Your task to perform on an android device: Search for "razer blackwidow" on target.com, select the first entry, and add it to the cart. Image 0: 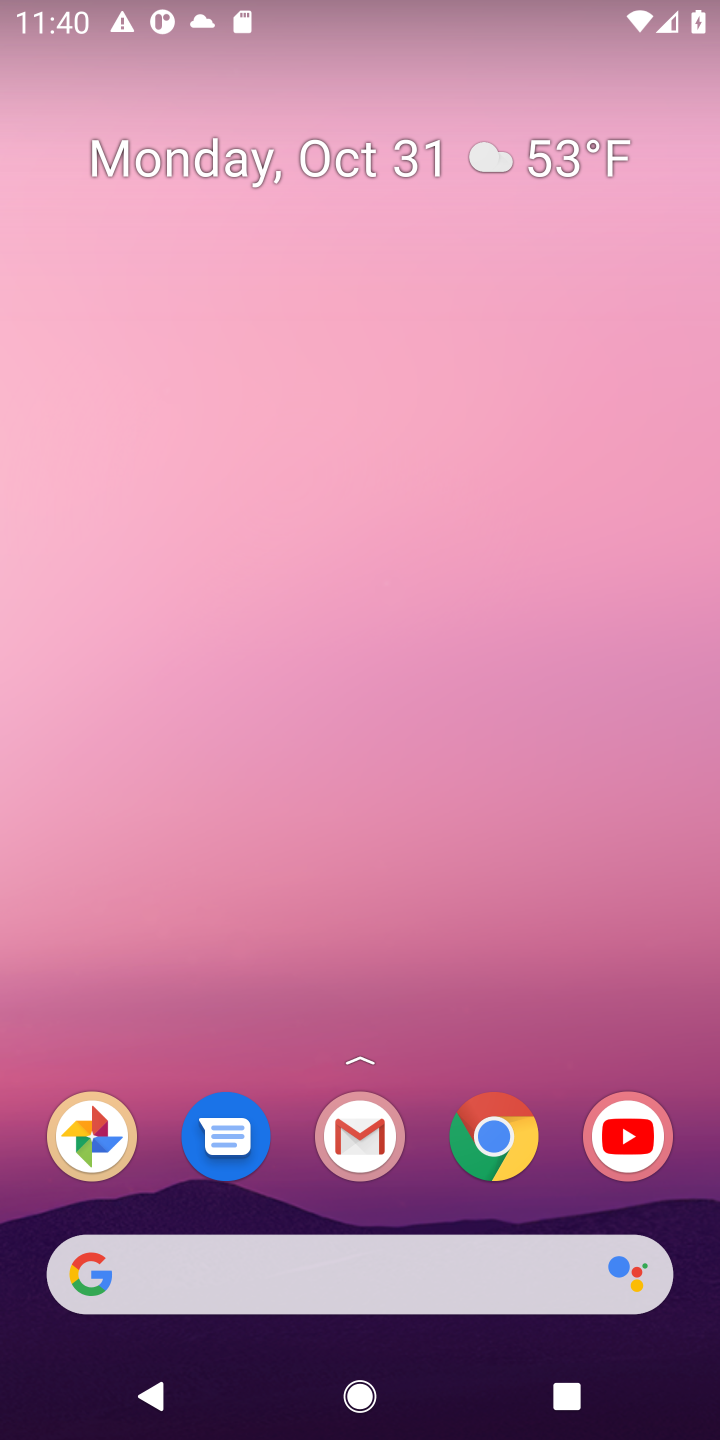
Step 0: press home button
Your task to perform on an android device: Search for "razer blackwidow" on target.com, select the first entry, and add it to the cart. Image 1: 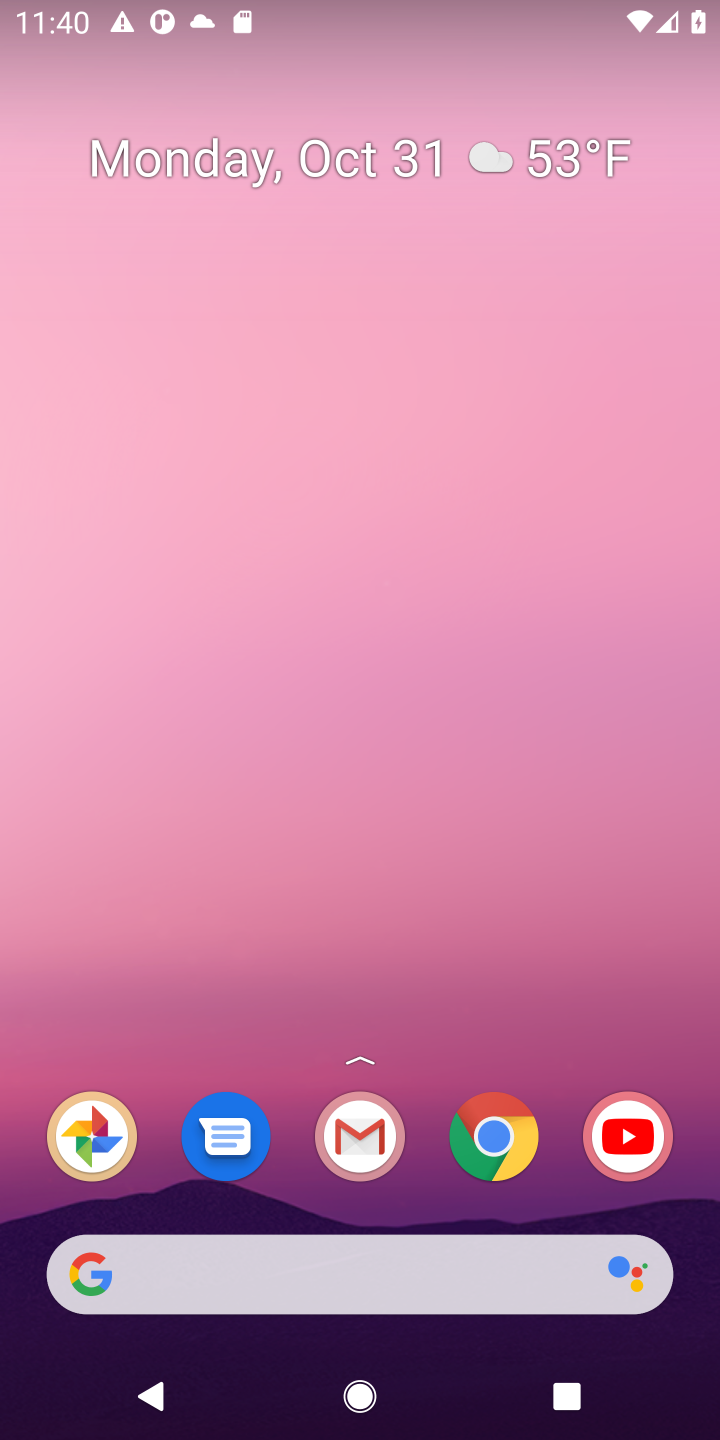
Step 1: click (127, 1278)
Your task to perform on an android device: Search for "razer blackwidow" on target.com, select the first entry, and add it to the cart. Image 2: 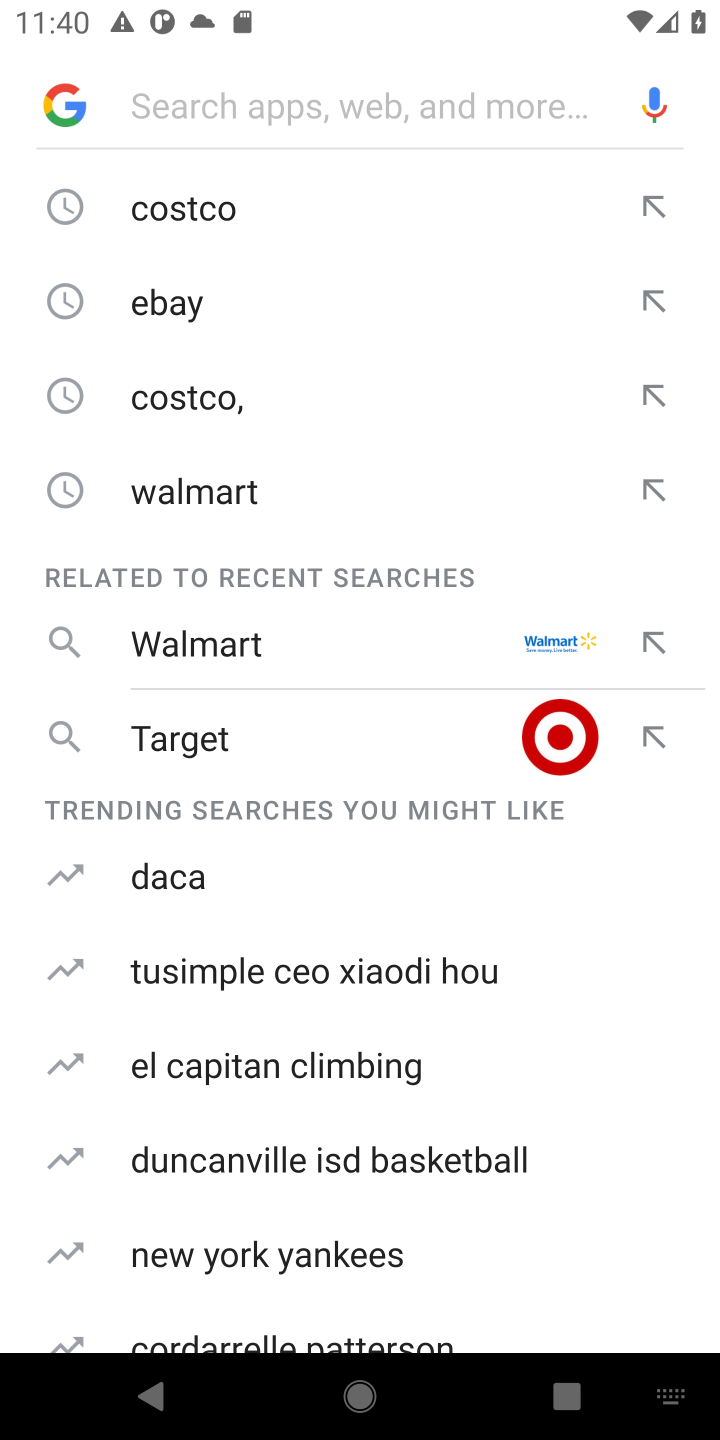
Step 2: type " target.com,"
Your task to perform on an android device: Search for "razer blackwidow" on target.com, select the first entry, and add it to the cart. Image 3: 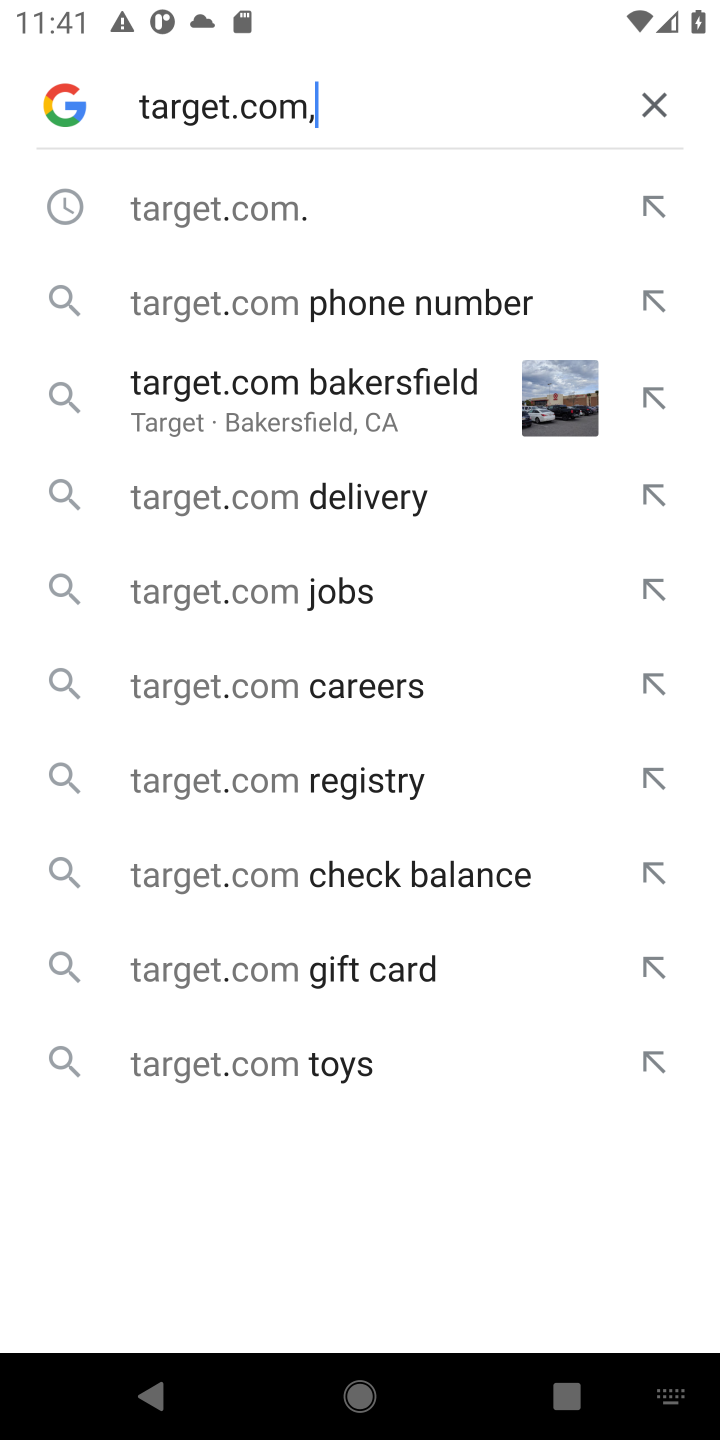
Step 3: press enter
Your task to perform on an android device: Search for "razer blackwidow" on target.com, select the first entry, and add it to the cart. Image 4: 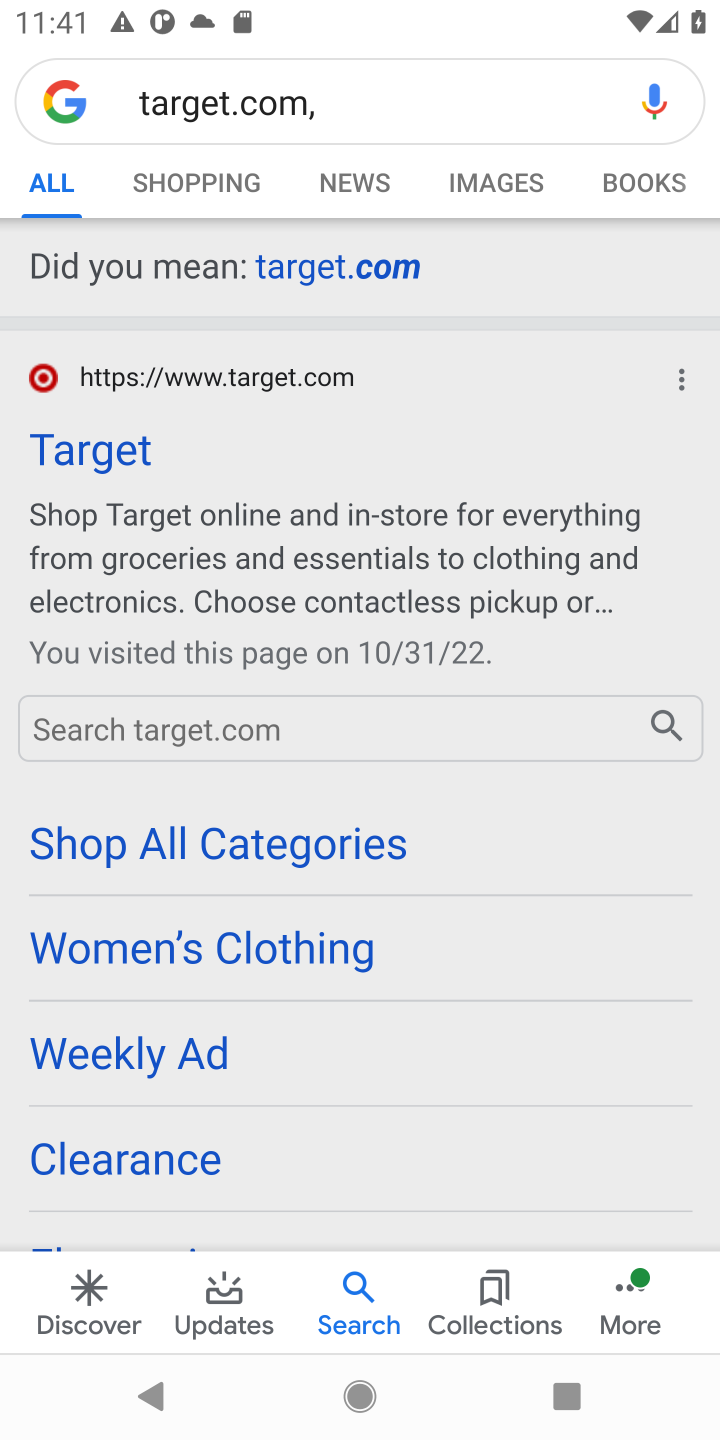
Step 4: click (90, 457)
Your task to perform on an android device: Search for "razer blackwidow" on target.com, select the first entry, and add it to the cart. Image 5: 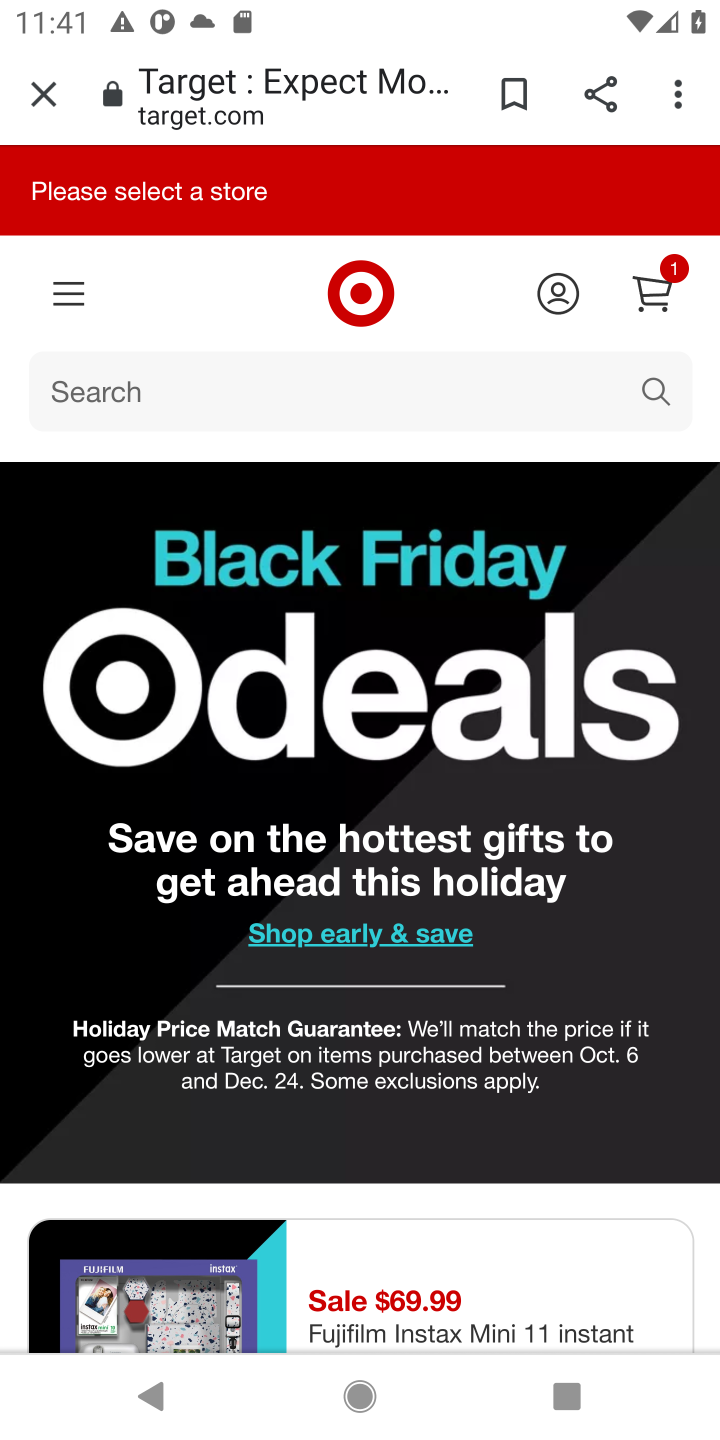
Step 5: click (129, 390)
Your task to perform on an android device: Search for "razer blackwidow" on target.com, select the first entry, and add it to the cart. Image 6: 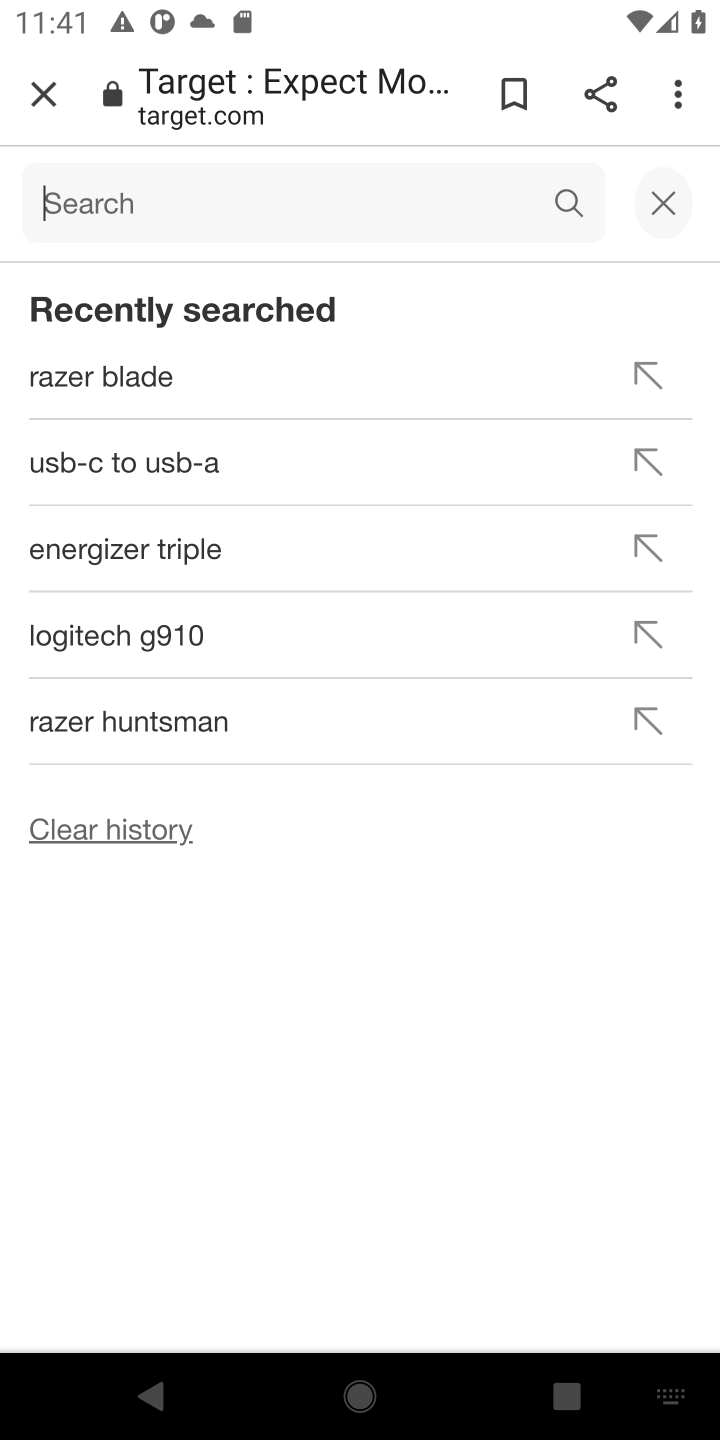
Step 6: type "razer blackwidow"
Your task to perform on an android device: Search for "razer blackwidow" on target.com, select the first entry, and add it to the cart. Image 7: 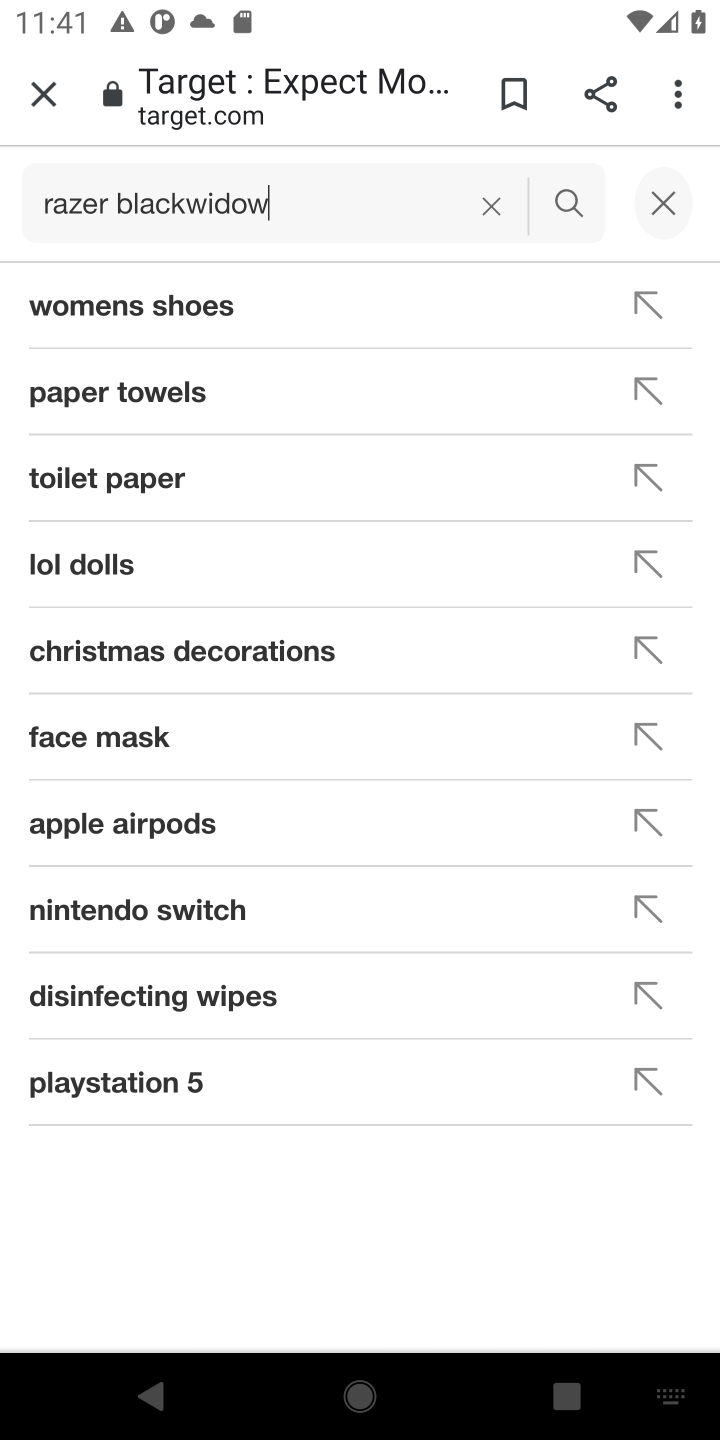
Step 7: press enter
Your task to perform on an android device: Search for "razer blackwidow" on target.com, select the first entry, and add it to the cart. Image 8: 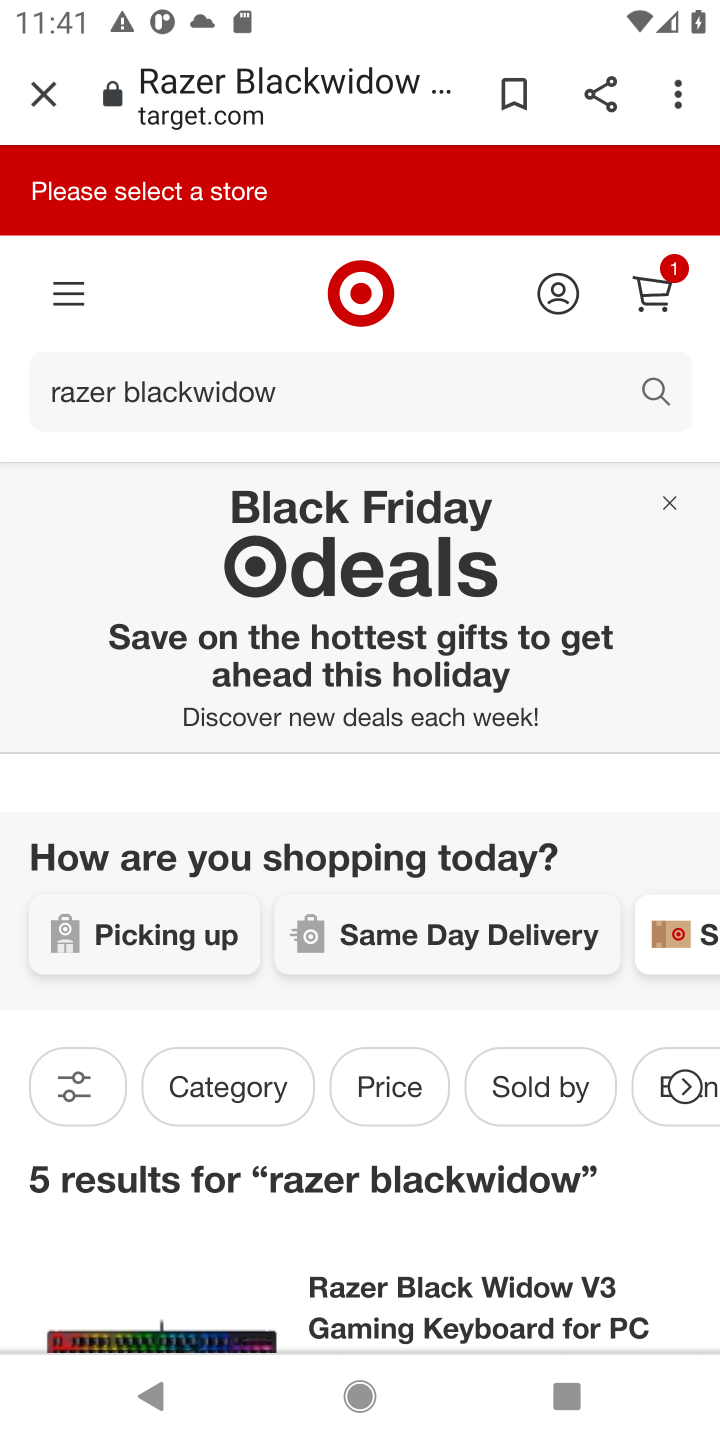
Step 8: drag from (420, 1177) to (408, 688)
Your task to perform on an android device: Search for "razer blackwidow" on target.com, select the first entry, and add it to the cart. Image 9: 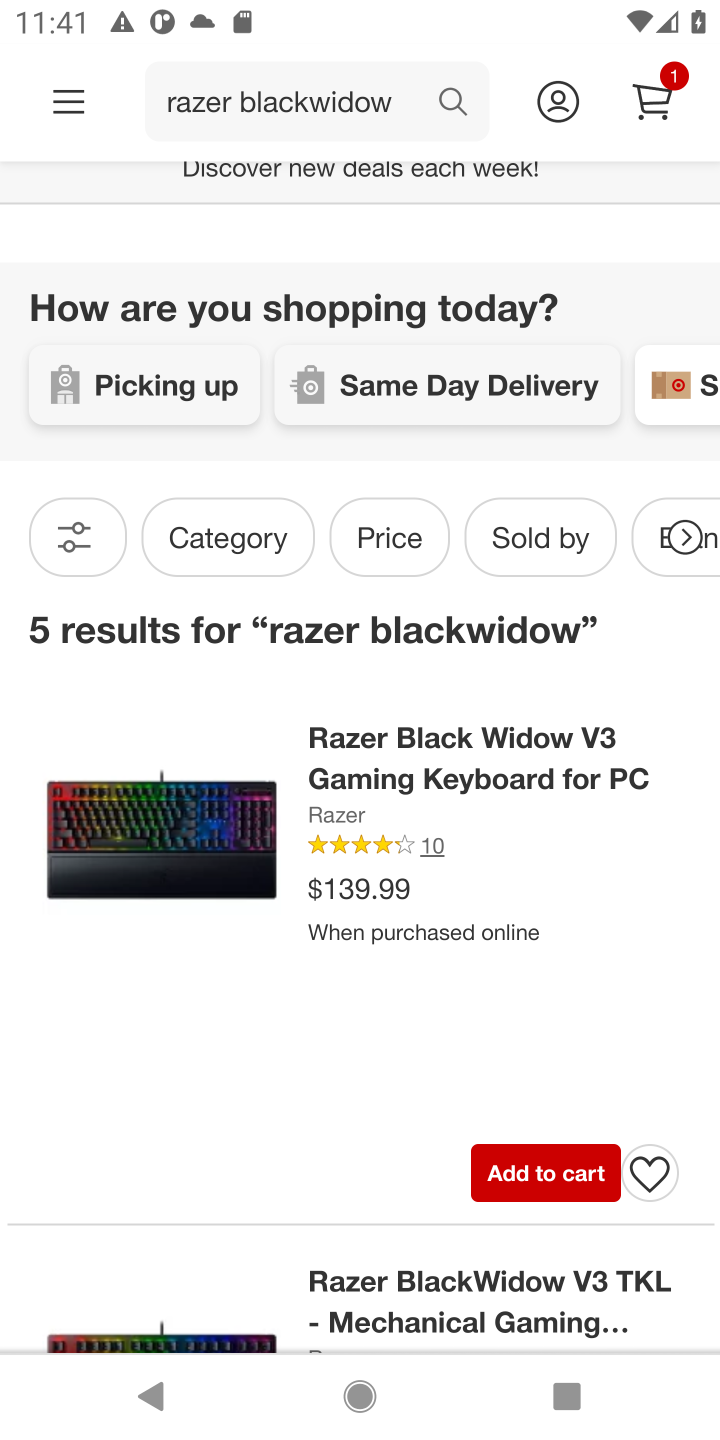
Step 9: drag from (363, 1102) to (388, 683)
Your task to perform on an android device: Search for "razer blackwidow" on target.com, select the first entry, and add it to the cart. Image 10: 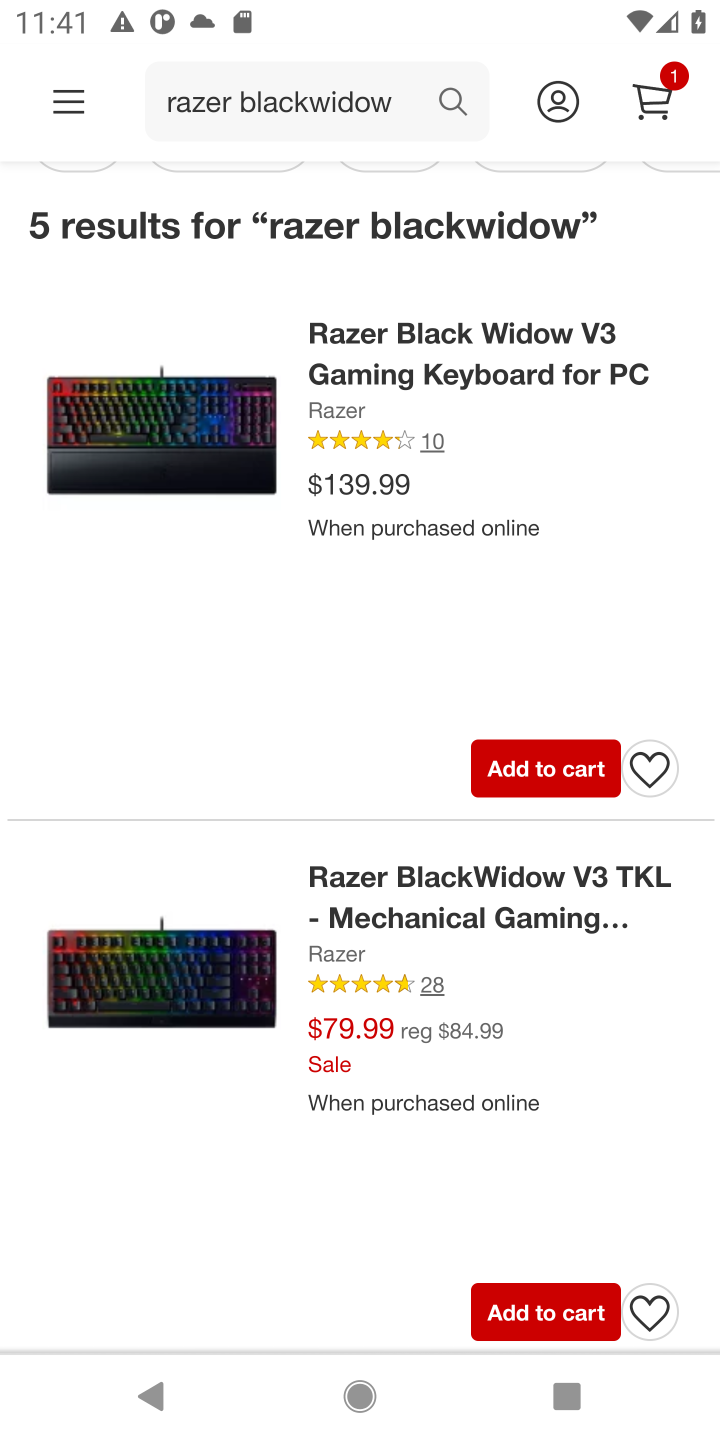
Step 10: click (528, 770)
Your task to perform on an android device: Search for "razer blackwidow" on target.com, select the first entry, and add it to the cart. Image 11: 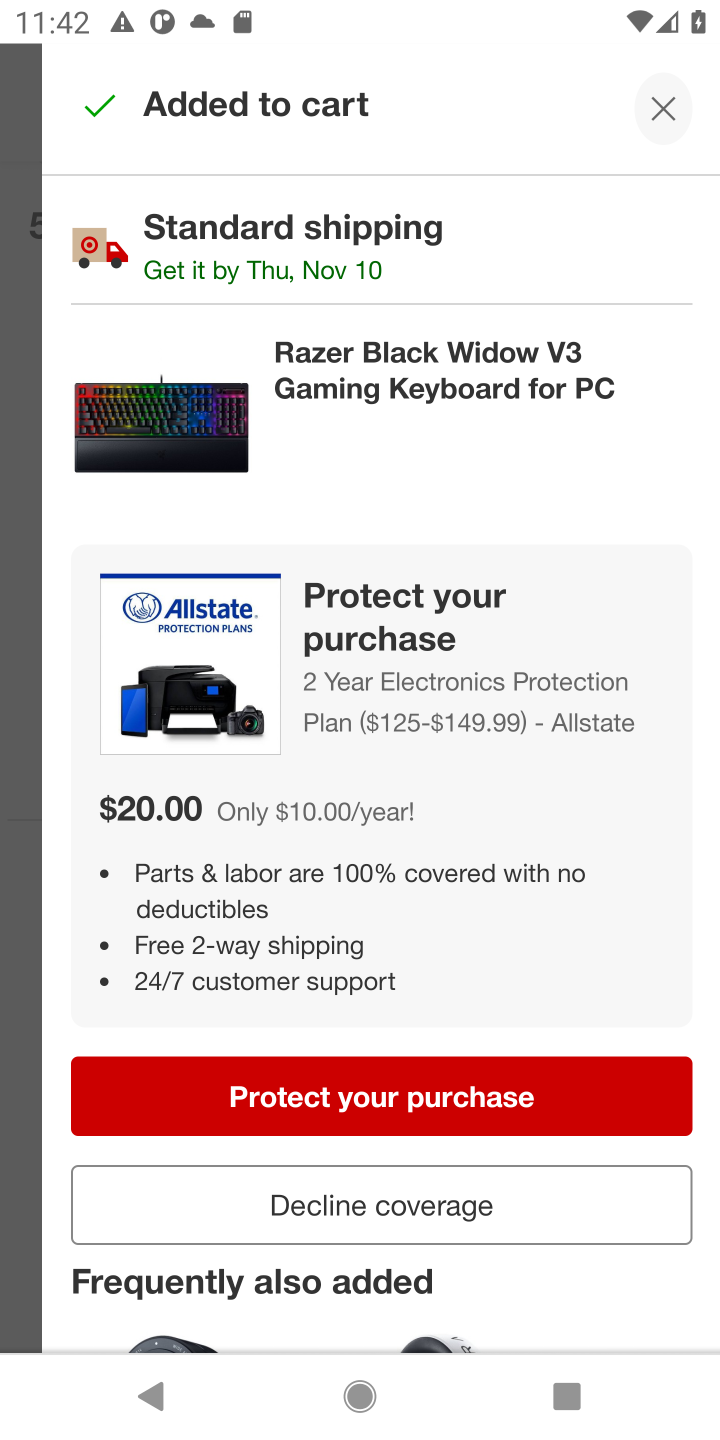
Step 11: task complete